Your task to perform on an android device: snooze an email in the gmail app Image 0: 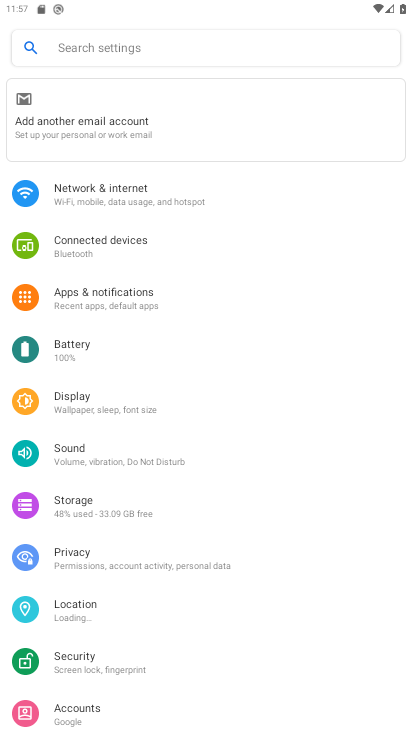
Step 0: press home button
Your task to perform on an android device: snooze an email in the gmail app Image 1: 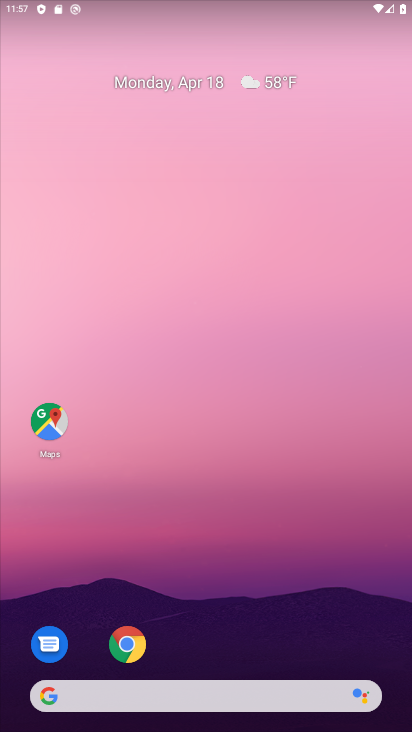
Step 1: drag from (278, 605) to (271, 181)
Your task to perform on an android device: snooze an email in the gmail app Image 2: 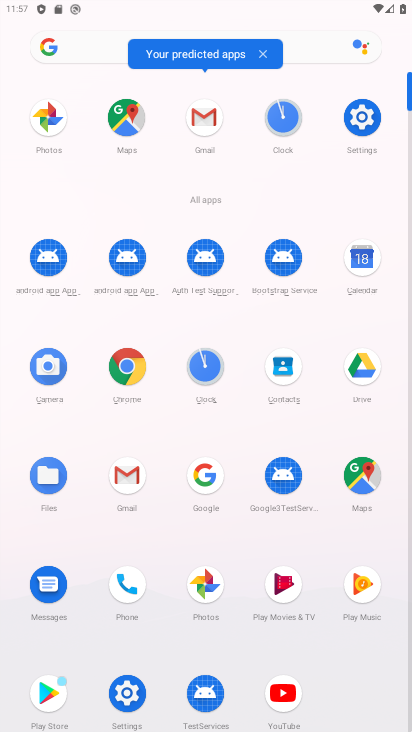
Step 2: click (205, 135)
Your task to perform on an android device: snooze an email in the gmail app Image 3: 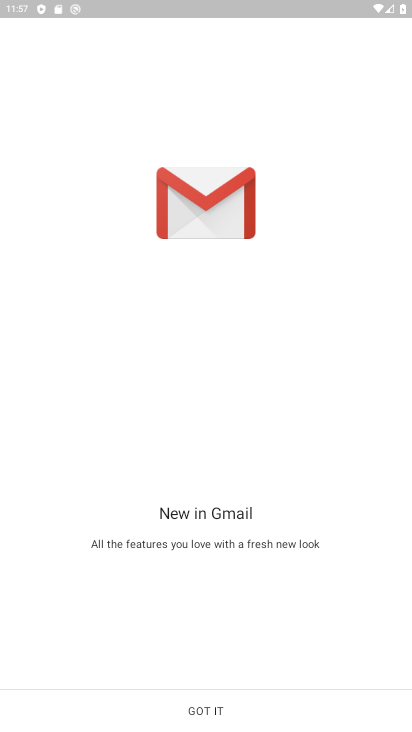
Step 3: click (211, 716)
Your task to perform on an android device: snooze an email in the gmail app Image 4: 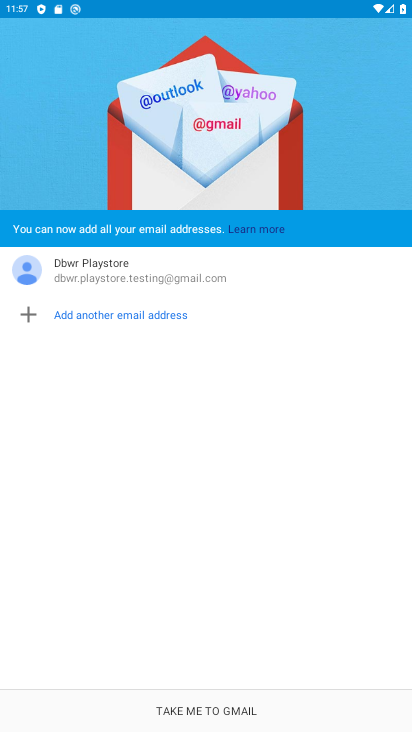
Step 4: click (203, 710)
Your task to perform on an android device: snooze an email in the gmail app Image 5: 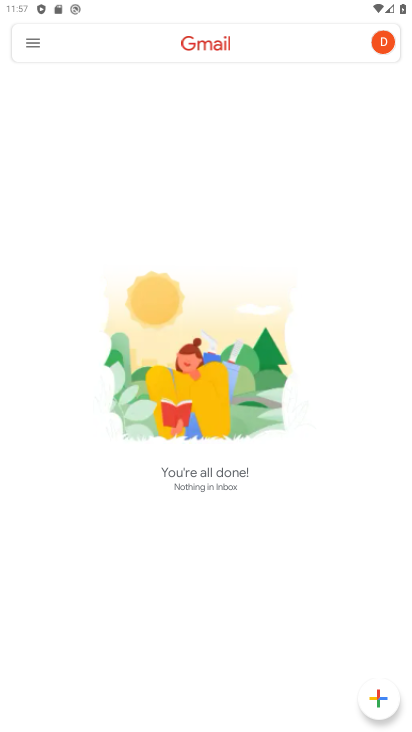
Step 5: click (28, 46)
Your task to perform on an android device: snooze an email in the gmail app Image 6: 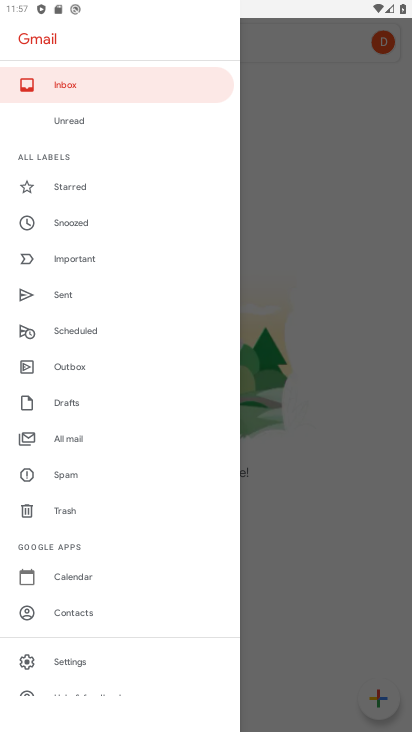
Step 6: click (338, 278)
Your task to perform on an android device: snooze an email in the gmail app Image 7: 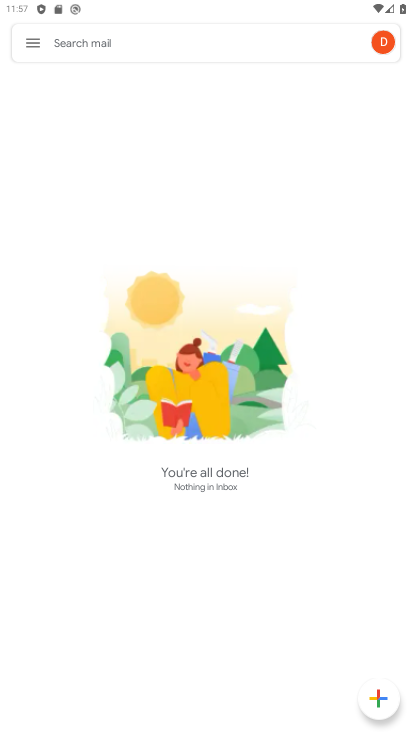
Step 7: task complete